Your task to perform on an android device: change keyboard looks Image 0: 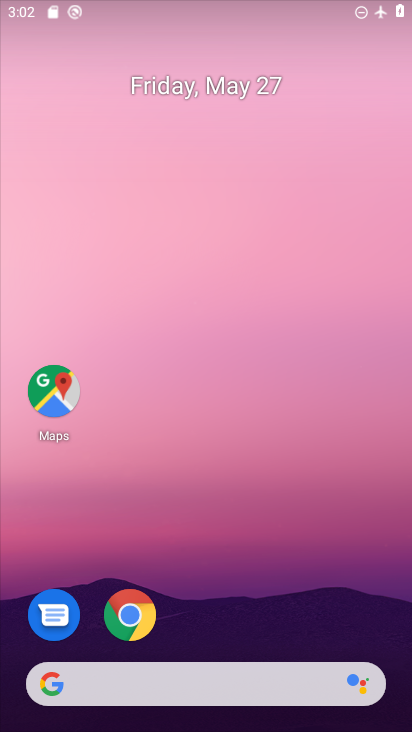
Step 0: drag from (251, 627) to (227, 50)
Your task to perform on an android device: change keyboard looks Image 1: 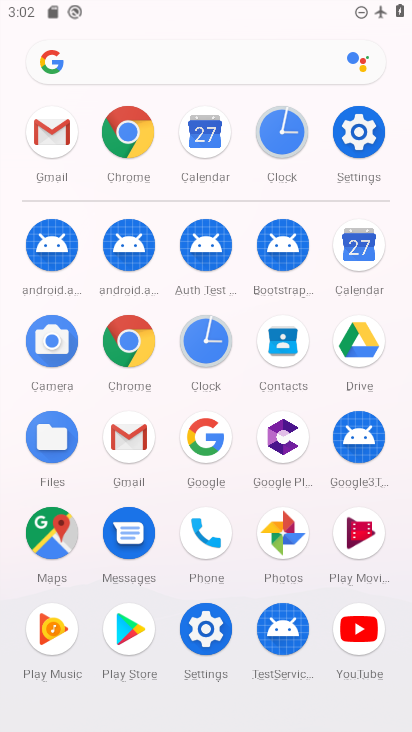
Step 1: click (221, 651)
Your task to perform on an android device: change keyboard looks Image 2: 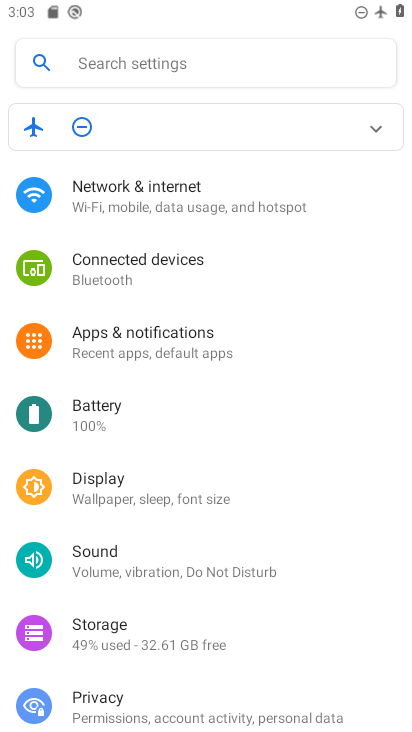
Step 2: drag from (281, 473) to (254, 1)
Your task to perform on an android device: change keyboard looks Image 3: 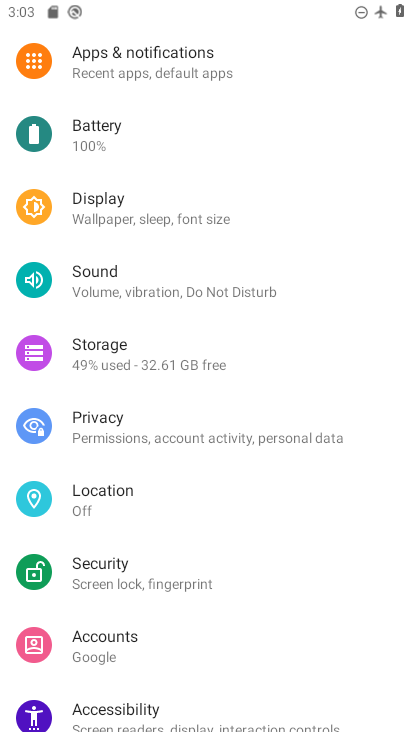
Step 3: drag from (183, 601) to (169, 78)
Your task to perform on an android device: change keyboard looks Image 4: 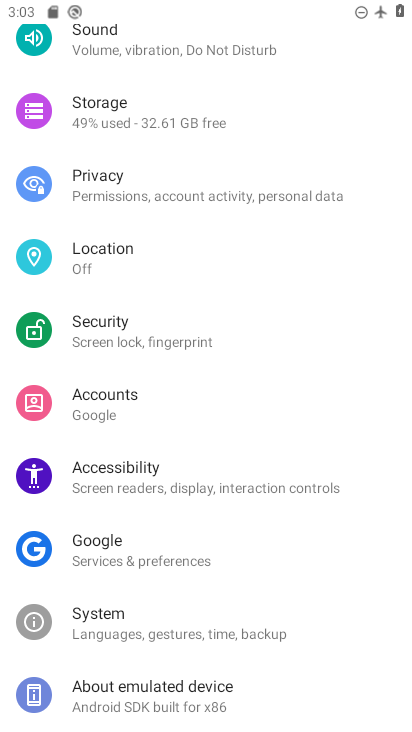
Step 4: click (194, 618)
Your task to perform on an android device: change keyboard looks Image 5: 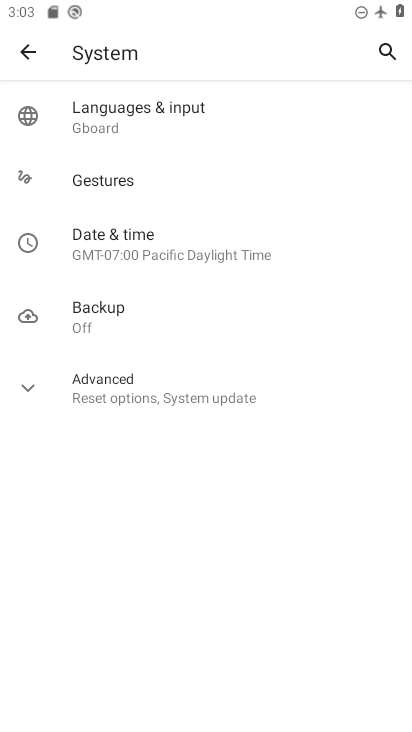
Step 5: click (156, 127)
Your task to perform on an android device: change keyboard looks Image 6: 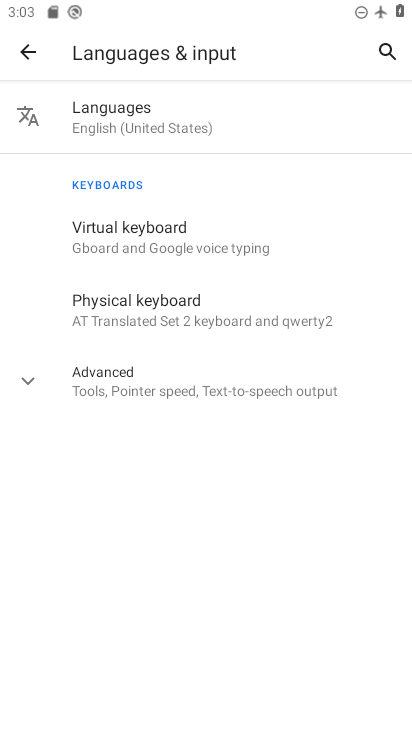
Step 6: click (173, 224)
Your task to perform on an android device: change keyboard looks Image 7: 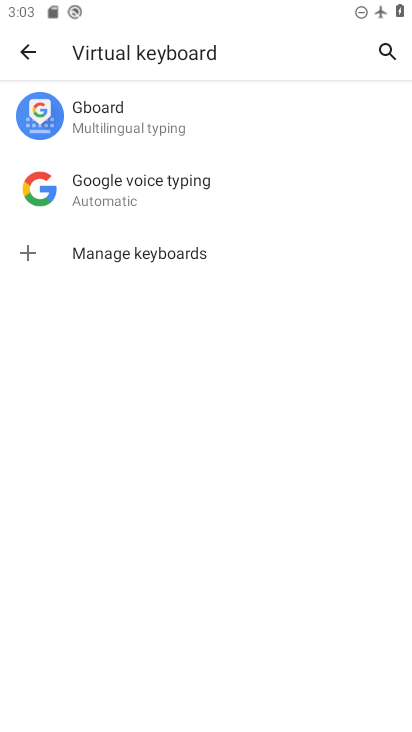
Step 7: click (165, 107)
Your task to perform on an android device: change keyboard looks Image 8: 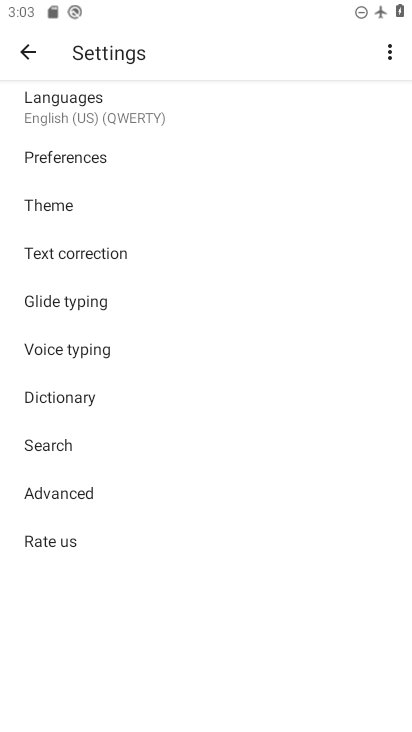
Step 8: click (140, 201)
Your task to perform on an android device: change keyboard looks Image 9: 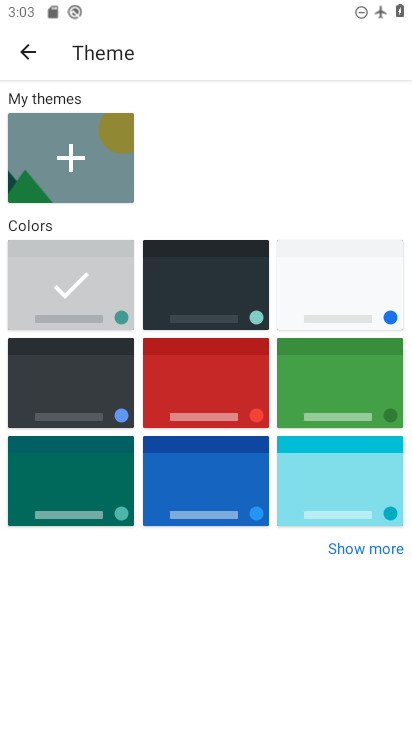
Step 9: click (206, 488)
Your task to perform on an android device: change keyboard looks Image 10: 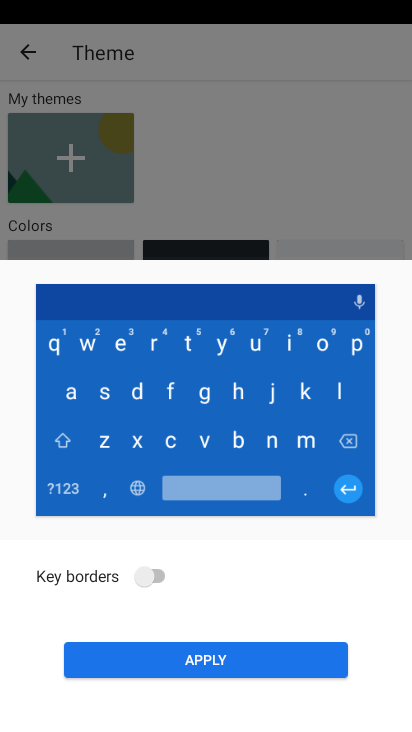
Step 10: click (214, 651)
Your task to perform on an android device: change keyboard looks Image 11: 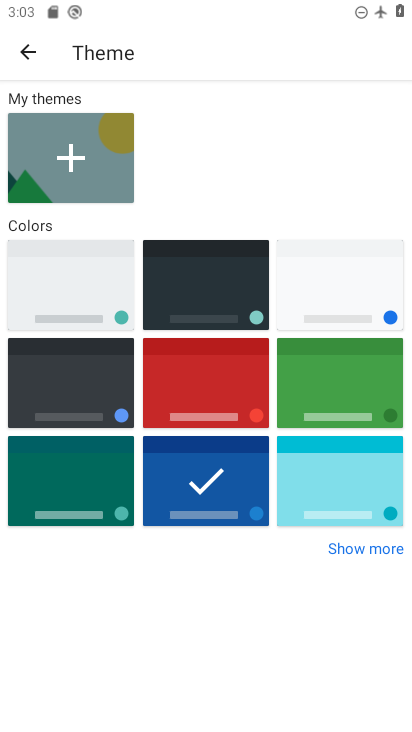
Step 11: task complete